Your task to perform on an android device: Open maps Image 0: 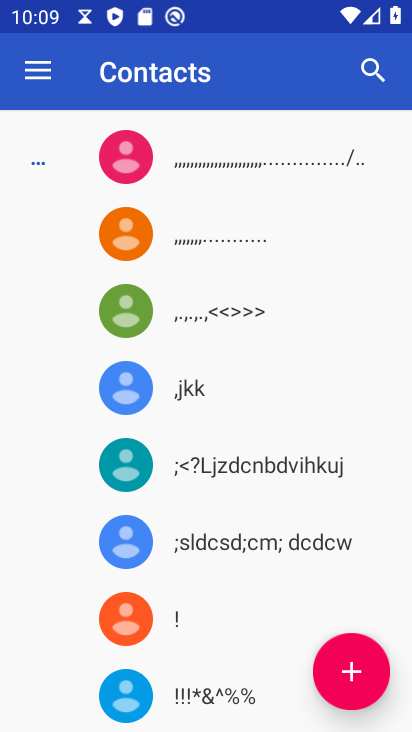
Step 0: press home button
Your task to perform on an android device: Open maps Image 1: 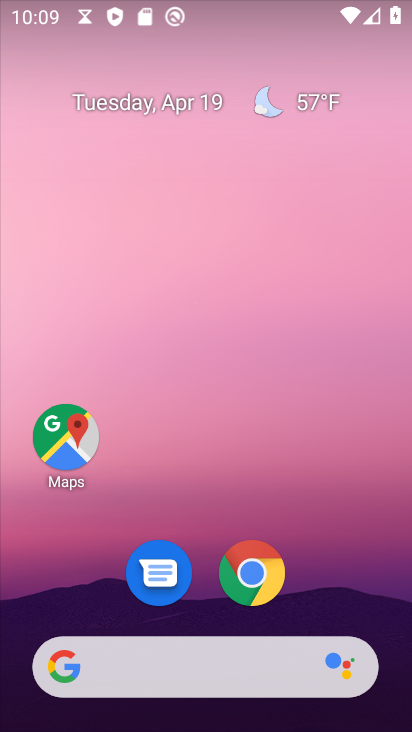
Step 1: click (64, 440)
Your task to perform on an android device: Open maps Image 2: 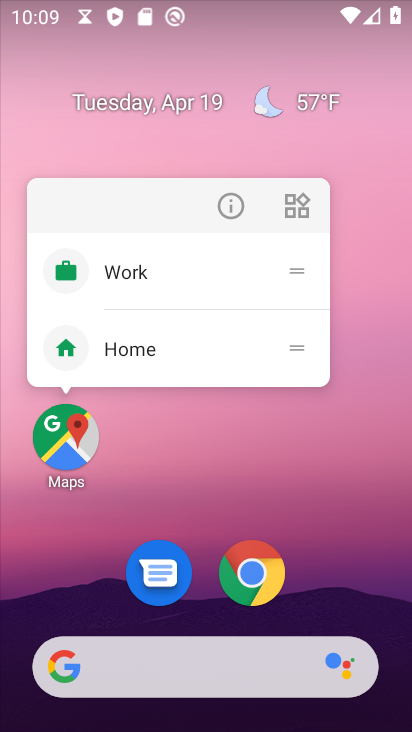
Step 2: click (64, 440)
Your task to perform on an android device: Open maps Image 3: 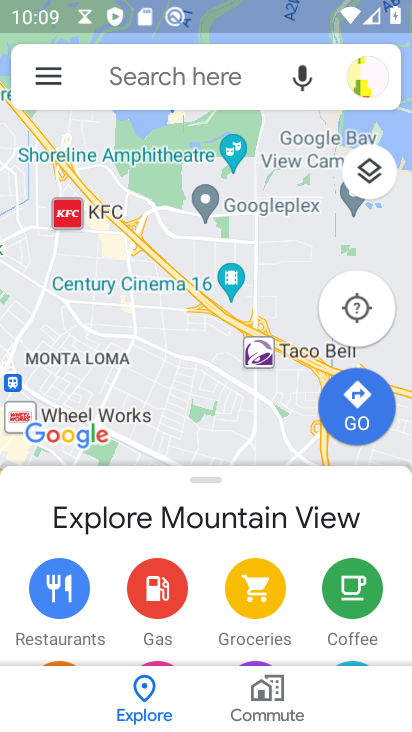
Step 3: task complete